Your task to perform on an android device: open app "Yahoo Mail" (install if not already installed) and go to login screen Image 0: 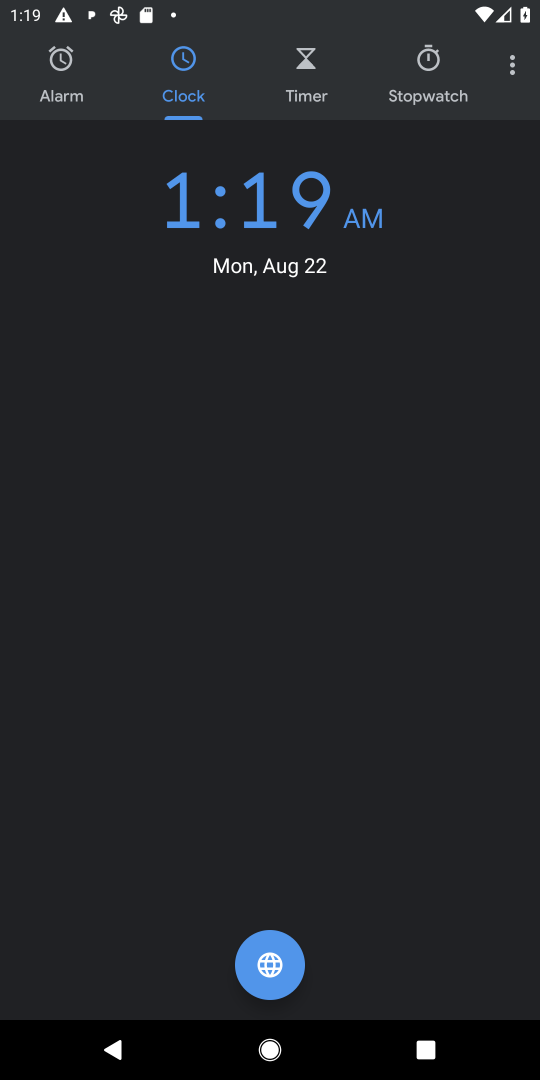
Step 0: press home button
Your task to perform on an android device: open app "Yahoo Mail" (install if not already installed) and go to login screen Image 1: 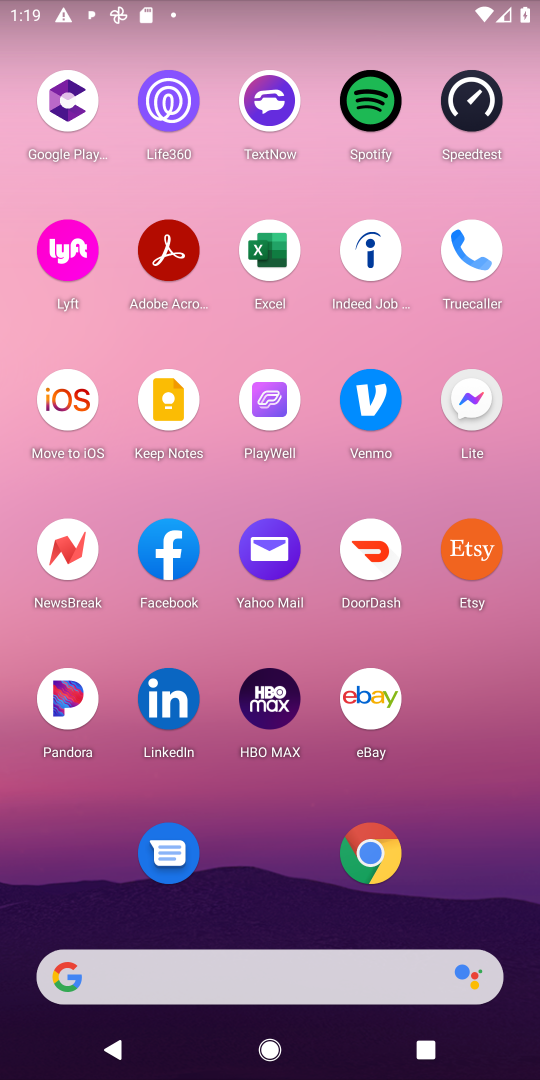
Step 1: drag from (262, 888) to (327, 129)
Your task to perform on an android device: open app "Yahoo Mail" (install if not already installed) and go to login screen Image 2: 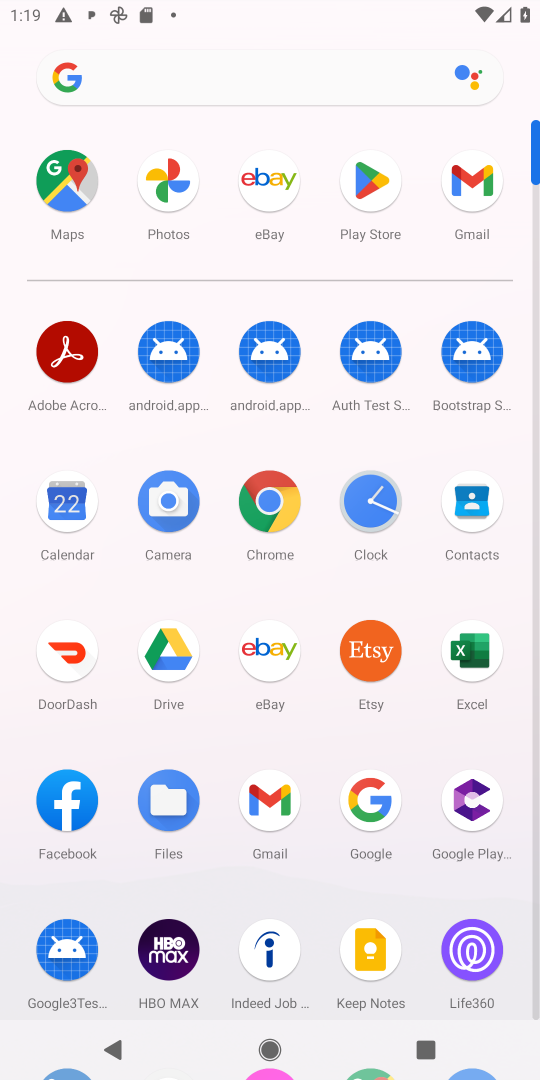
Step 2: click (371, 182)
Your task to perform on an android device: open app "Yahoo Mail" (install if not already installed) and go to login screen Image 3: 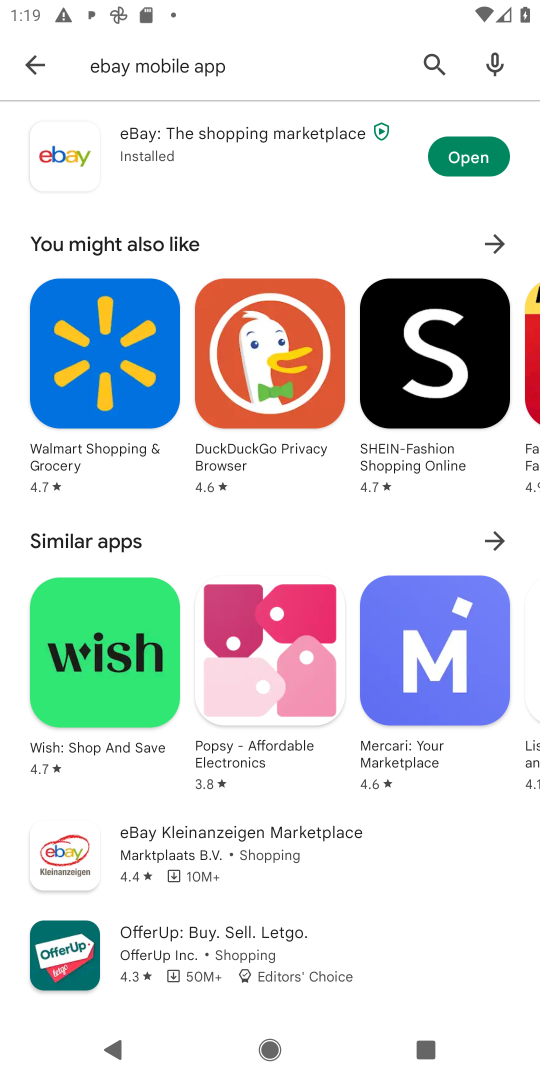
Step 3: click (25, 53)
Your task to perform on an android device: open app "Yahoo Mail" (install if not already installed) and go to login screen Image 4: 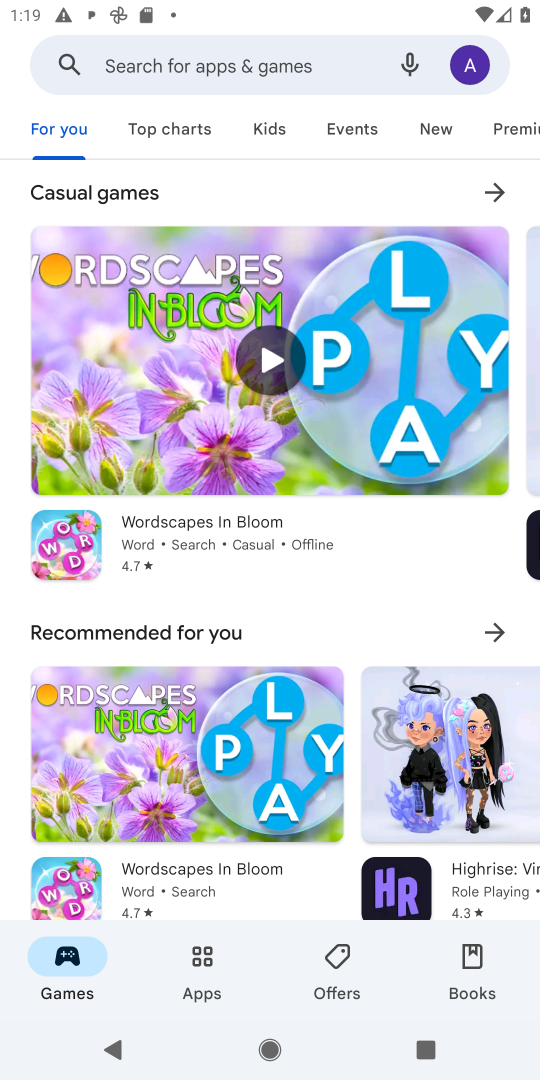
Step 4: click (198, 67)
Your task to perform on an android device: open app "Yahoo Mail" (install if not already installed) and go to login screen Image 5: 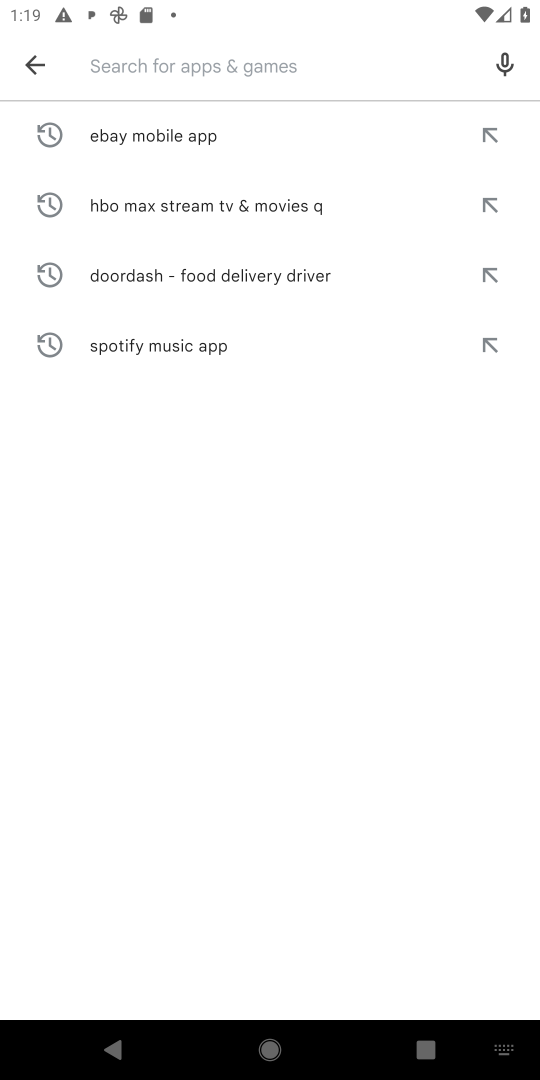
Step 5: type "Yahoo Mail "
Your task to perform on an android device: open app "Yahoo Mail" (install if not already installed) and go to login screen Image 6: 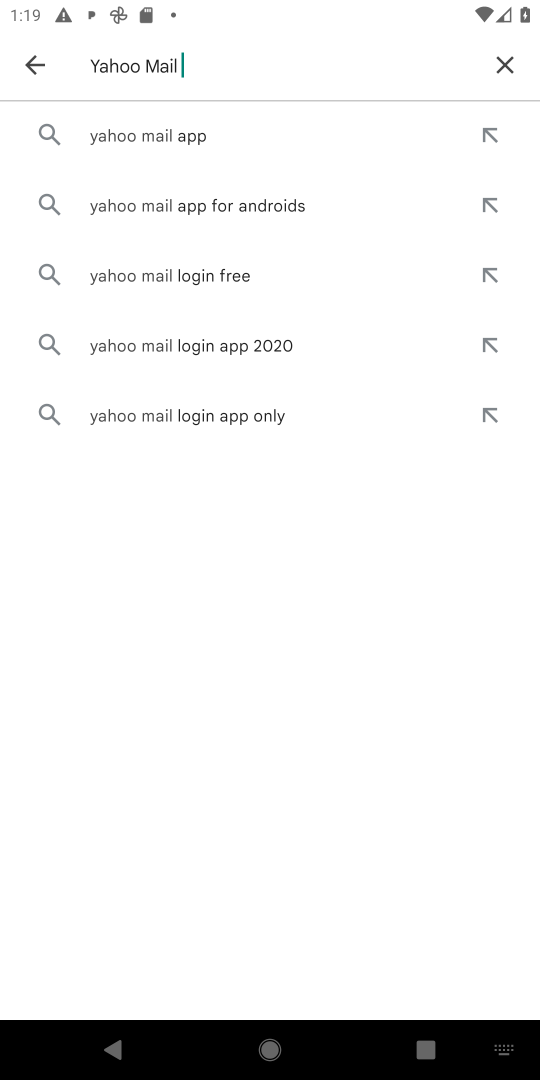
Step 6: click (189, 149)
Your task to perform on an android device: open app "Yahoo Mail" (install if not already installed) and go to login screen Image 7: 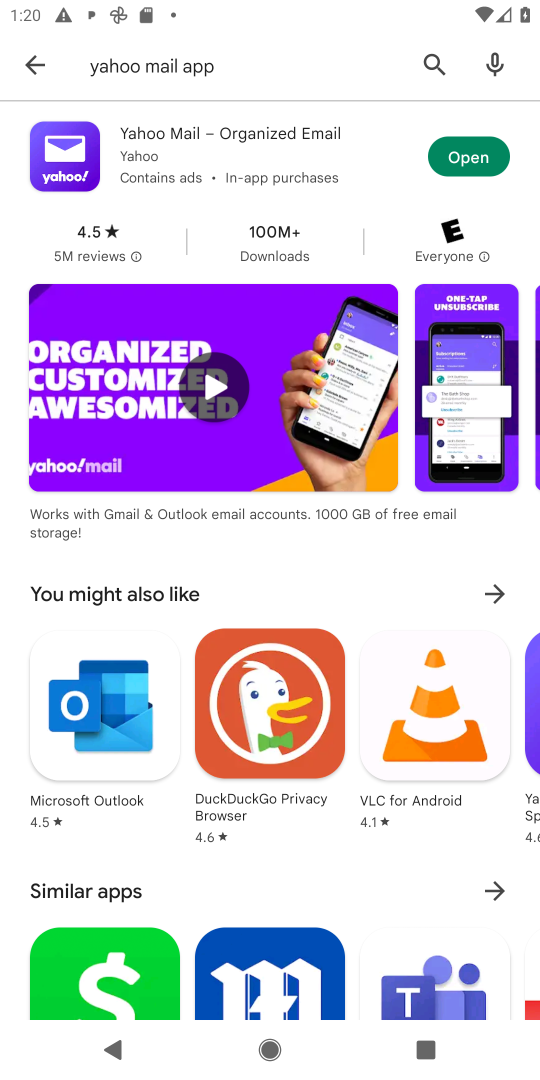
Step 7: click (475, 148)
Your task to perform on an android device: open app "Yahoo Mail" (install if not already installed) and go to login screen Image 8: 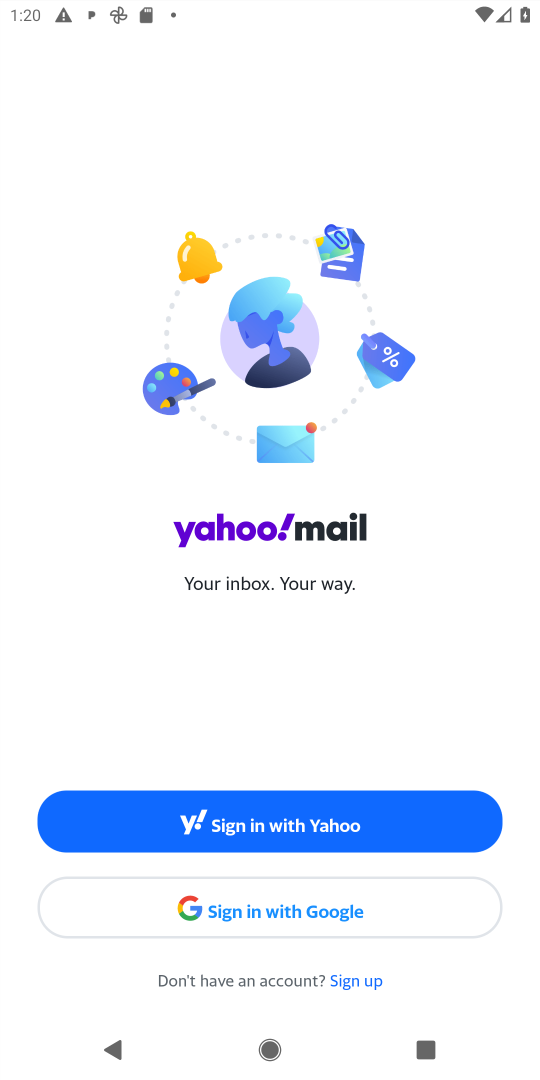
Step 8: task complete